Your task to perform on an android device: open app "Google Chrome" (install if not already installed) Image 0: 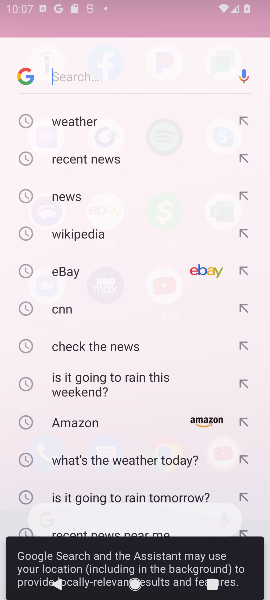
Step 0: press home button
Your task to perform on an android device: open app "Google Chrome" (install if not already installed) Image 1: 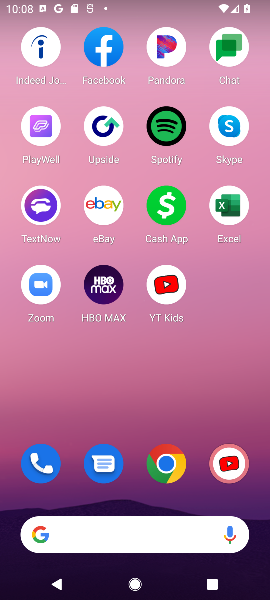
Step 1: drag from (123, 420) to (170, 13)
Your task to perform on an android device: open app "Google Chrome" (install if not already installed) Image 2: 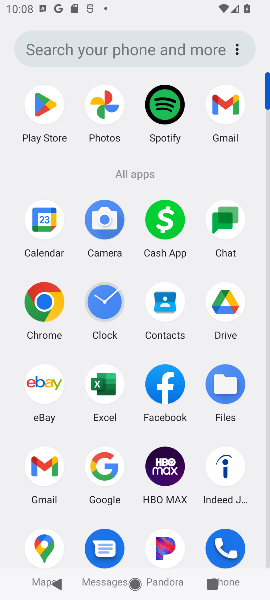
Step 2: drag from (126, 438) to (115, 17)
Your task to perform on an android device: open app "Google Chrome" (install if not already installed) Image 3: 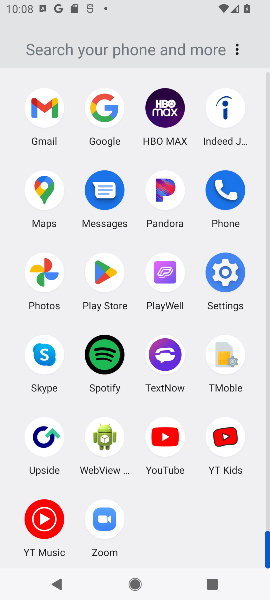
Step 3: click (106, 264)
Your task to perform on an android device: open app "Google Chrome" (install if not already installed) Image 4: 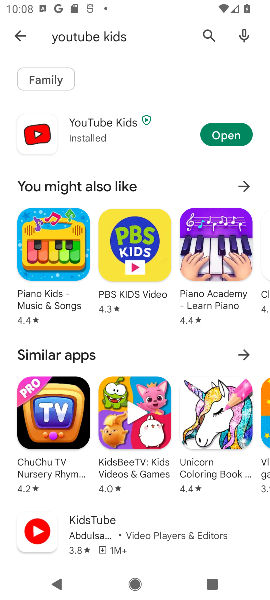
Step 4: click (207, 34)
Your task to perform on an android device: open app "Google Chrome" (install if not already installed) Image 5: 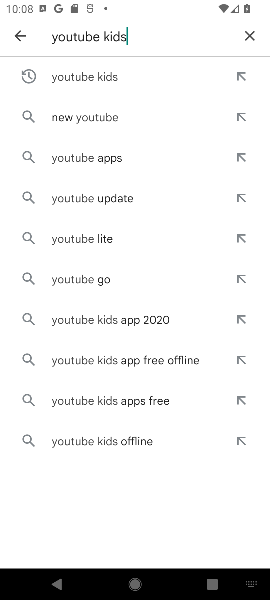
Step 5: click (247, 40)
Your task to perform on an android device: open app "Google Chrome" (install if not already installed) Image 6: 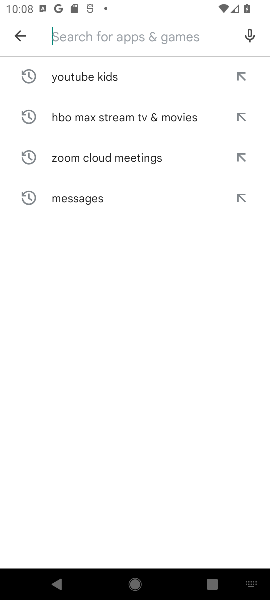
Step 6: type "Google Chrome"
Your task to perform on an android device: open app "Google Chrome" (install if not already installed) Image 7: 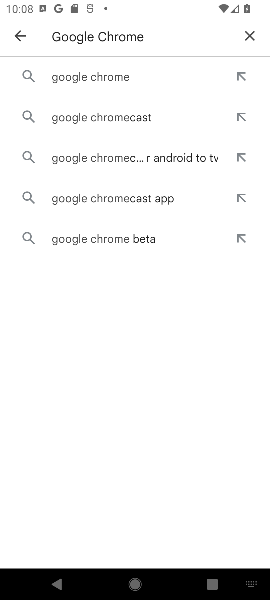
Step 7: click (134, 80)
Your task to perform on an android device: open app "Google Chrome" (install if not already installed) Image 8: 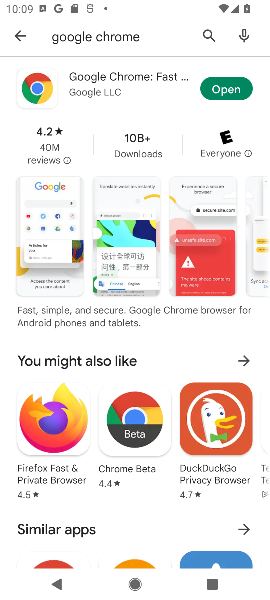
Step 8: click (220, 86)
Your task to perform on an android device: open app "Google Chrome" (install if not already installed) Image 9: 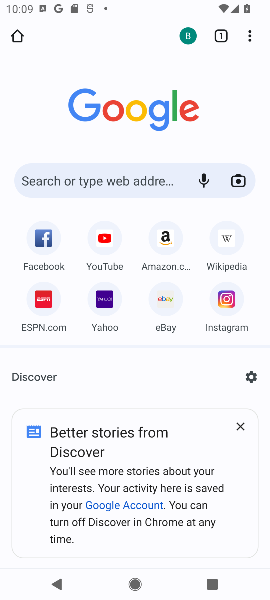
Step 9: press home button
Your task to perform on an android device: open app "Google Chrome" (install if not already installed) Image 10: 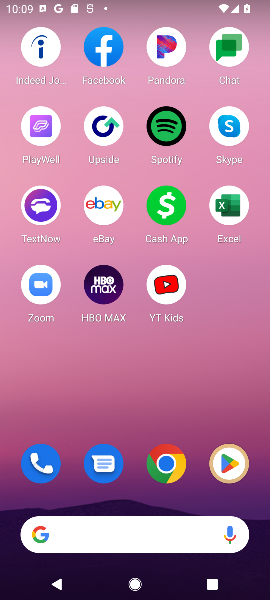
Step 10: click (225, 461)
Your task to perform on an android device: open app "Google Chrome" (install if not already installed) Image 11: 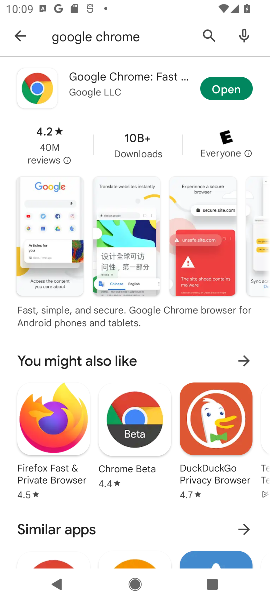
Step 11: click (225, 86)
Your task to perform on an android device: open app "Google Chrome" (install if not already installed) Image 12: 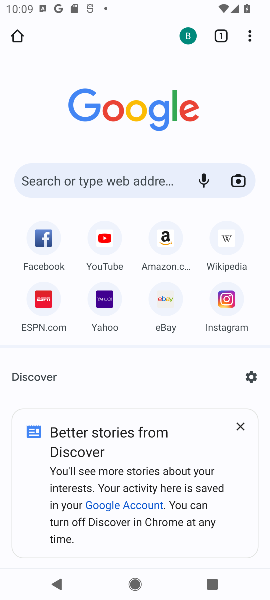
Step 12: task complete